Your task to perform on an android device: Open the stopwatch Image 0: 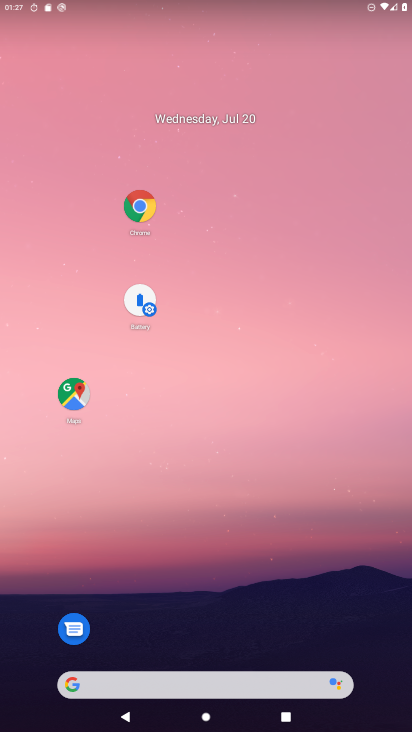
Step 0: drag from (201, 645) to (378, 58)
Your task to perform on an android device: Open the stopwatch Image 1: 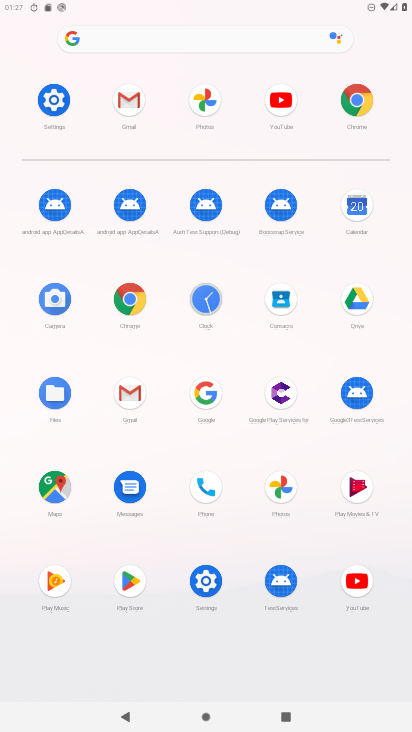
Step 1: click (200, 295)
Your task to perform on an android device: Open the stopwatch Image 2: 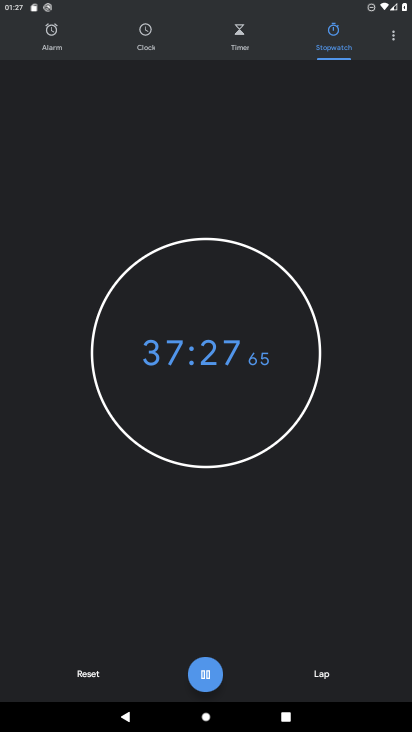
Step 2: task complete